Your task to perform on an android device: When is my next meeting? Image 0: 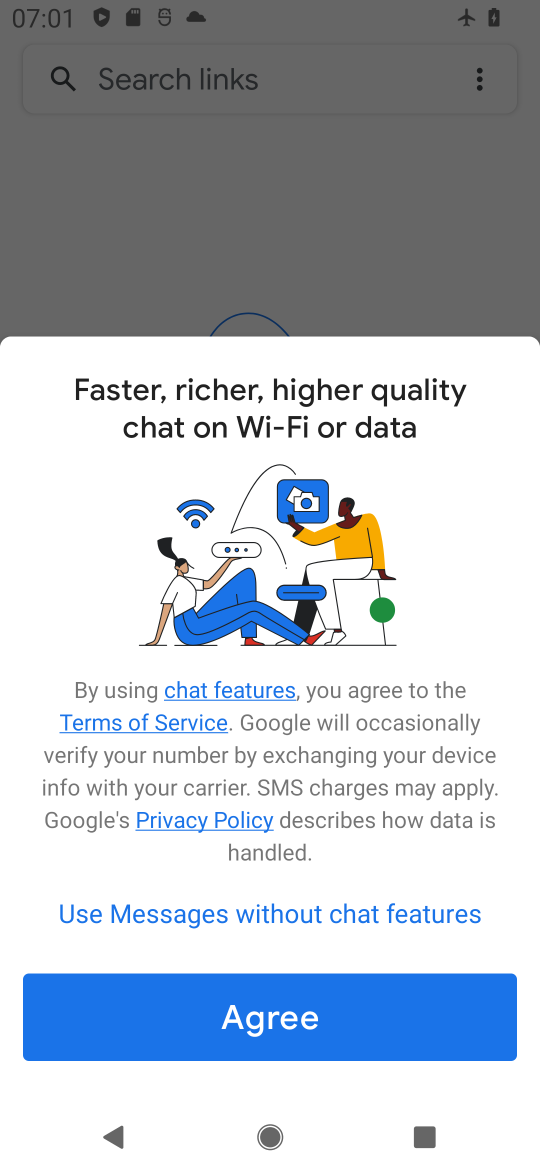
Step 0: press home button
Your task to perform on an android device: When is my next meeting? Image 1: 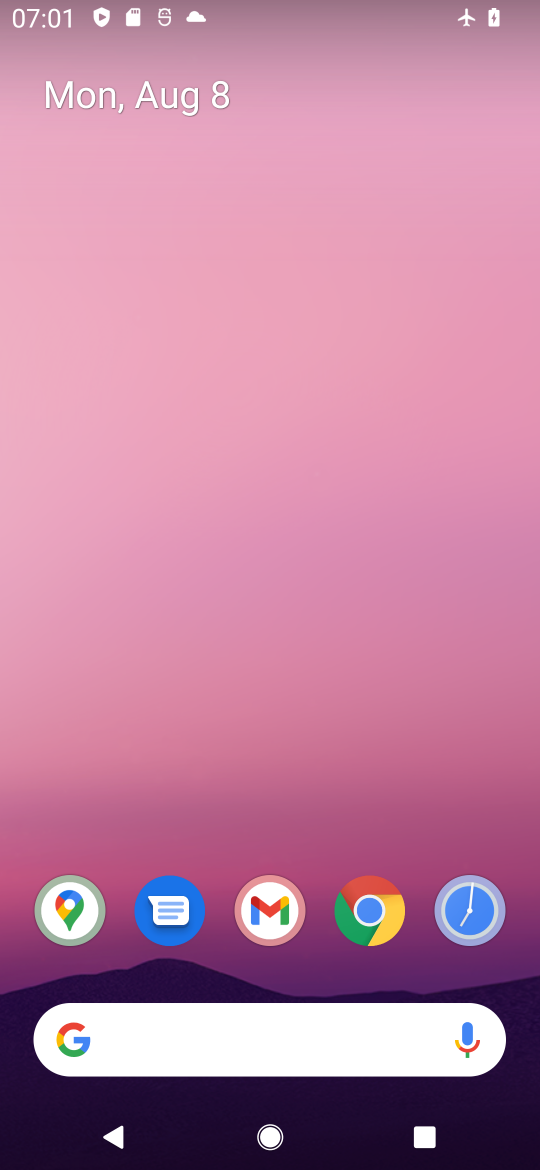
Step 1: drag from (240, 1048) to (341, 347)
Your task to perform on an android device: When is my next meeting? Image 2: 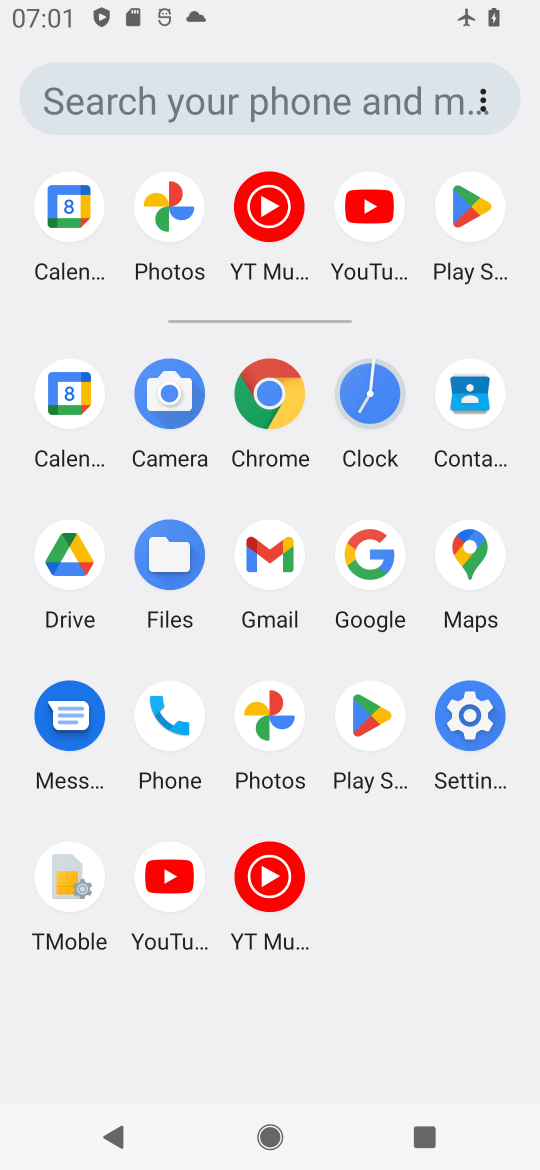
Step 2: click (72, 394)
Your task to perform on an android device: When is my next meeting? Image 3: 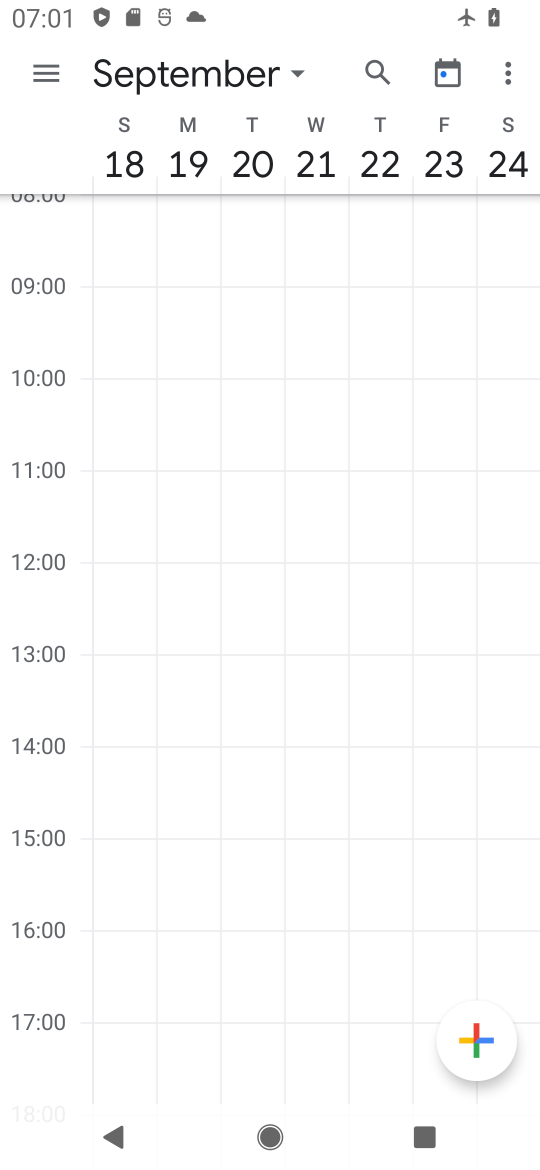
Step 3: click (455, 68)
Your task to perform on an android device: When is my next meeting? Image 4: 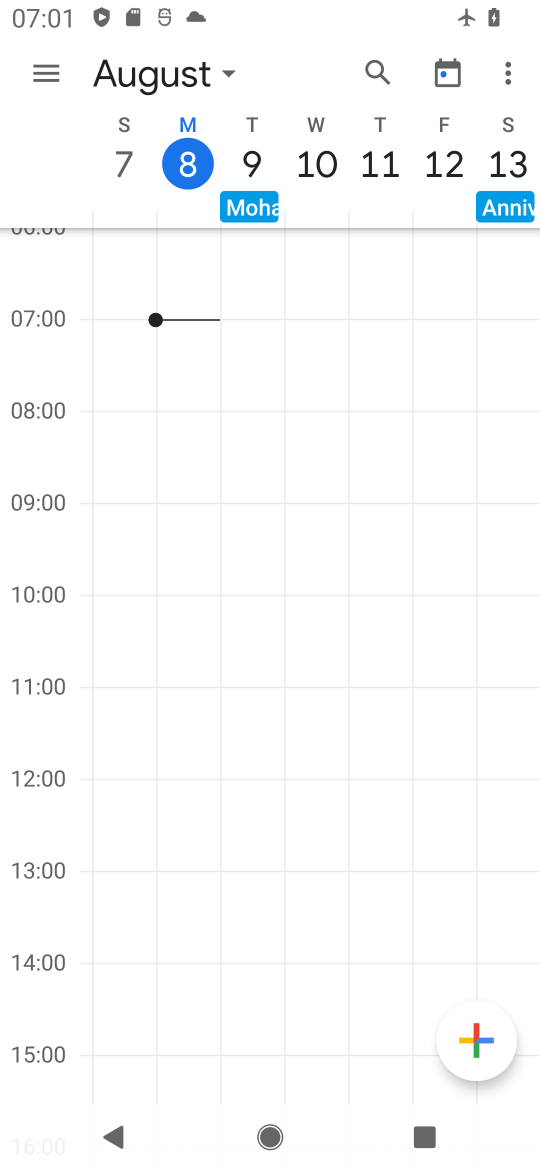
Step 4: click (221, 76)
Your task to perform on an android device: When is my next meeting? Image 5: 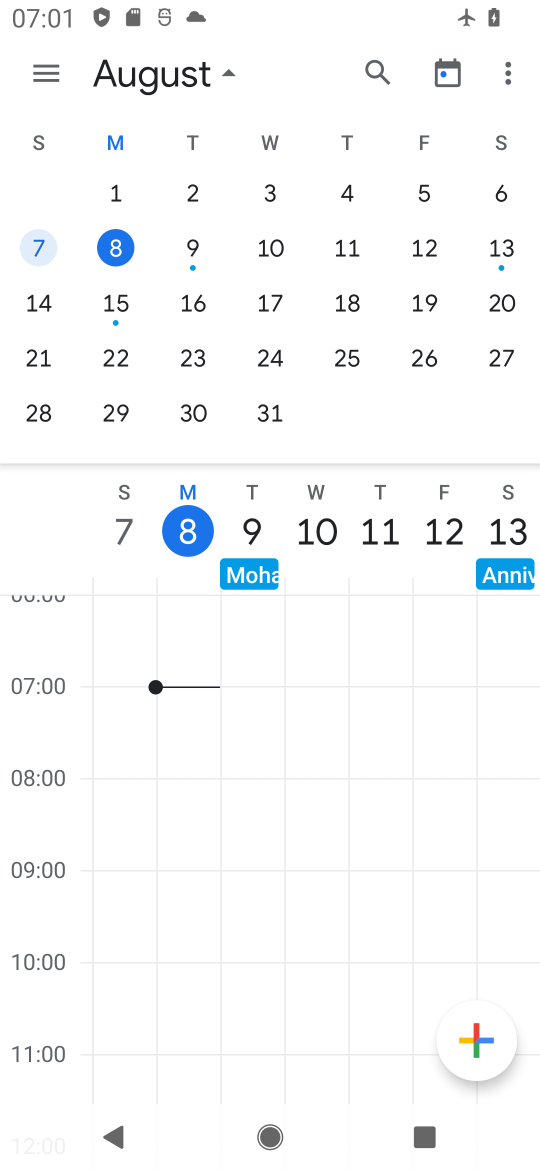
Step 5: click (192, 256)
Your task to perform on an android device: When is my next meeting? Image 6: 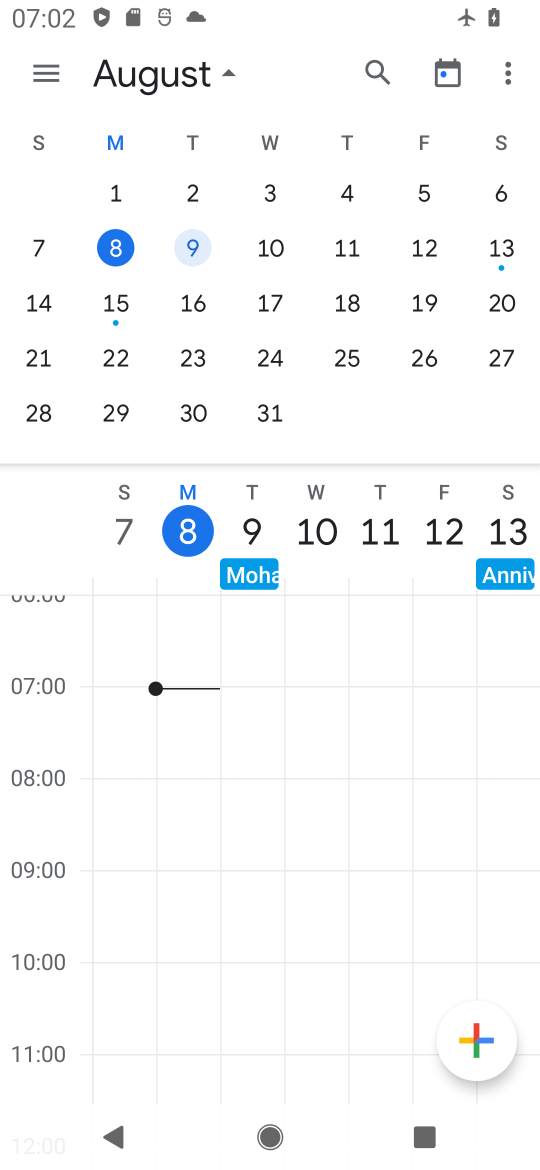
Step 6: click (34, 62)
Your task to perform on an android device: When is my next meeting? Image 7: 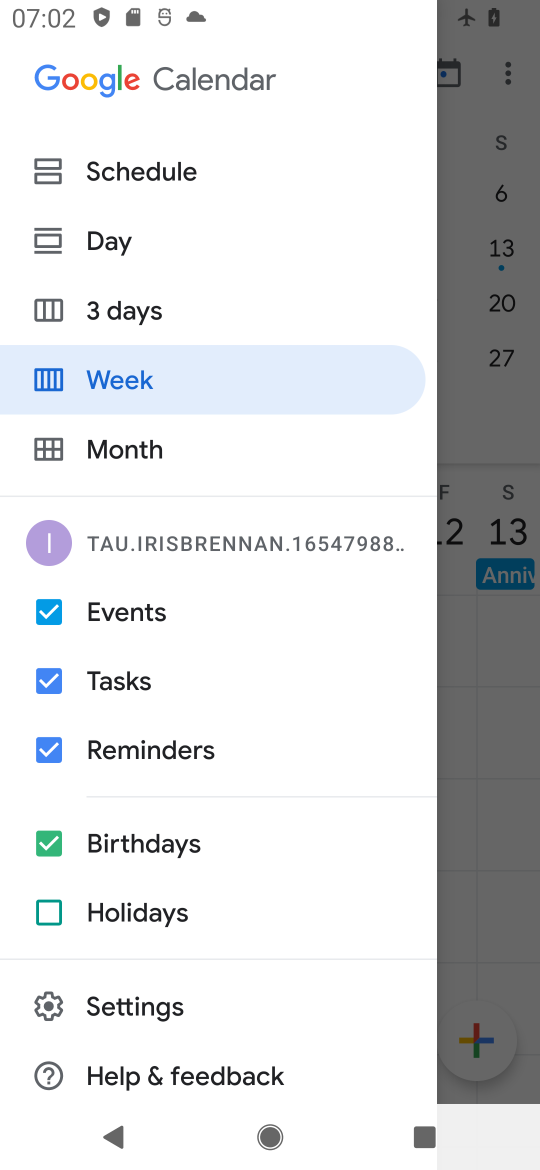
Step 7: click (116, 166)
Your task to perform on an android device: When is my next meeting? Image 8: 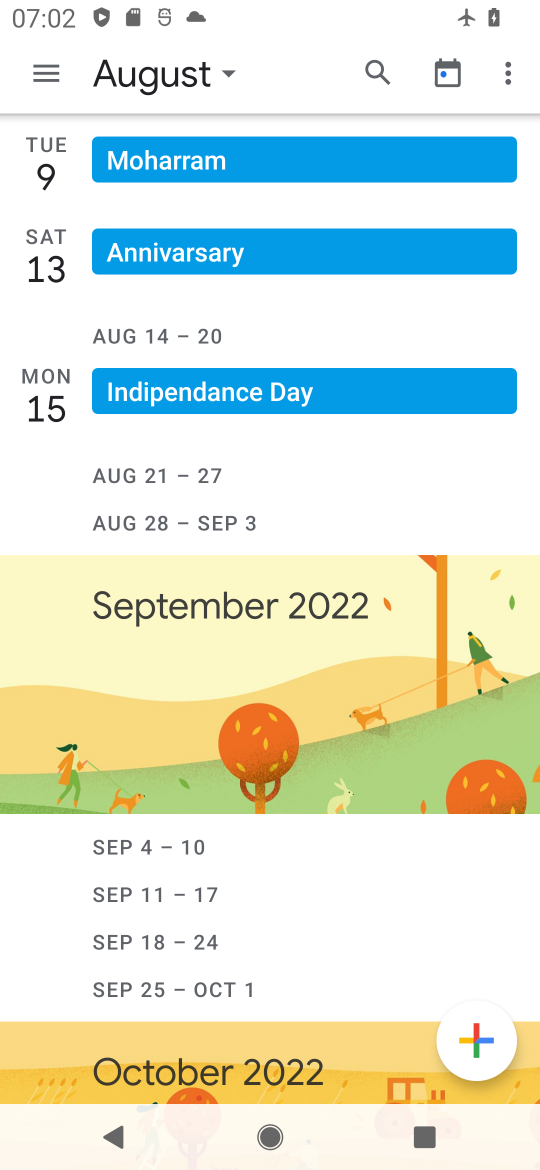
Step 8: task complete